Your task to perform on an android device: turn notification dots on Image 0: 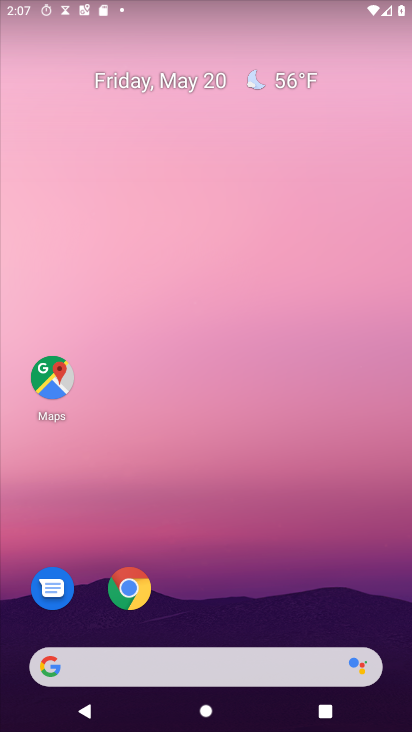
Step 0: drag from (1, 700) to (287, 269)
Your task to perform on an android device: turn notification dots on Image 1: 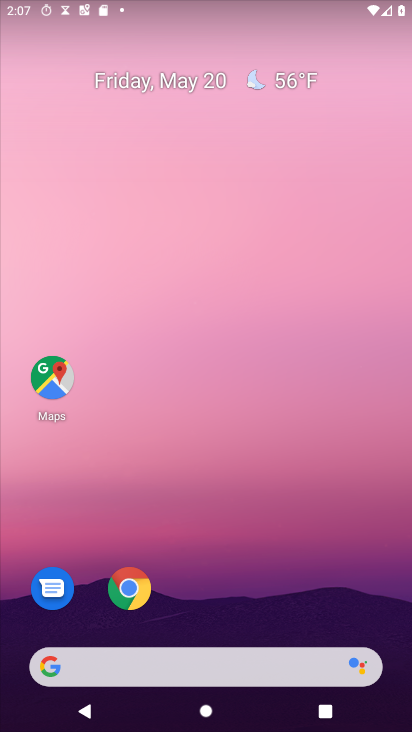
Step 1: drag from (40, 627) to (296, 264)
Your task to perform on an android device: turn notification dots on Image 2: 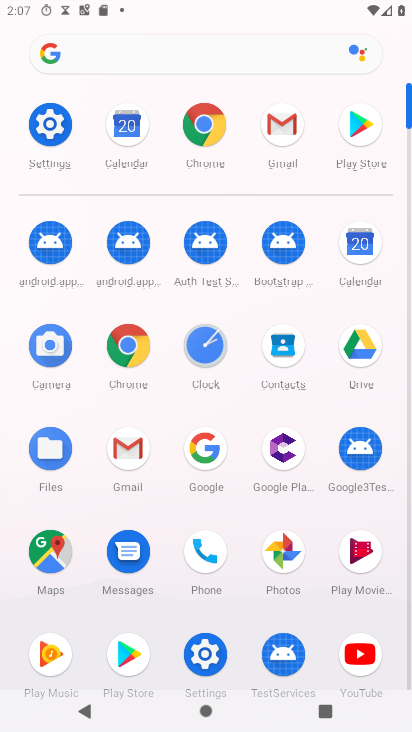
Step 2: click (66, 135)
Your task to perform on an android device: turn notification dots on Image 3: 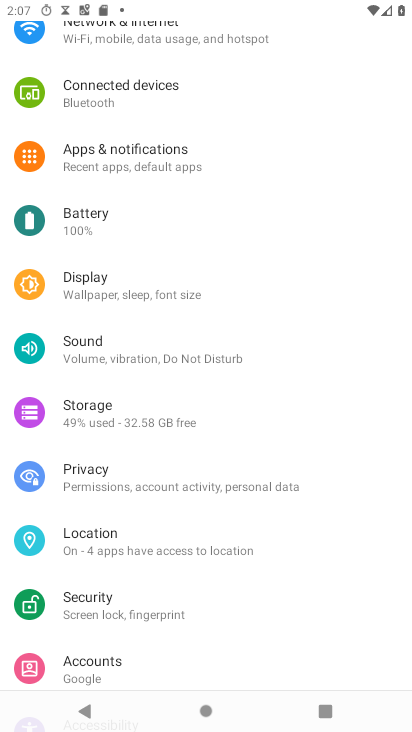
Step 3: click (150, 140)
Your task to perform on an android device: turn notification dots on Image 4: 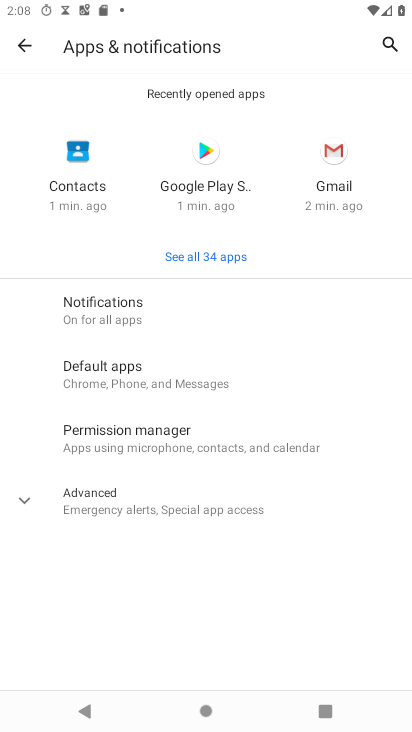
Step 4: click (215, 331)
Your task to perform on an android device: turn notification dots on Image 5: 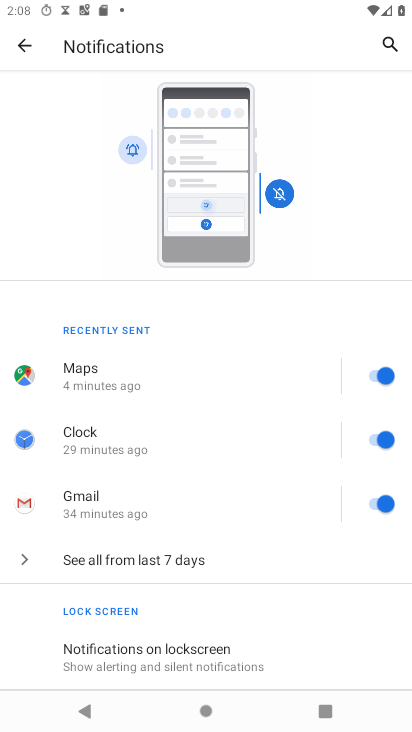
Step 5: drag from (69, 633) to (230, 219)
Your task to perform on an android device: turn notification dots on Image 6: 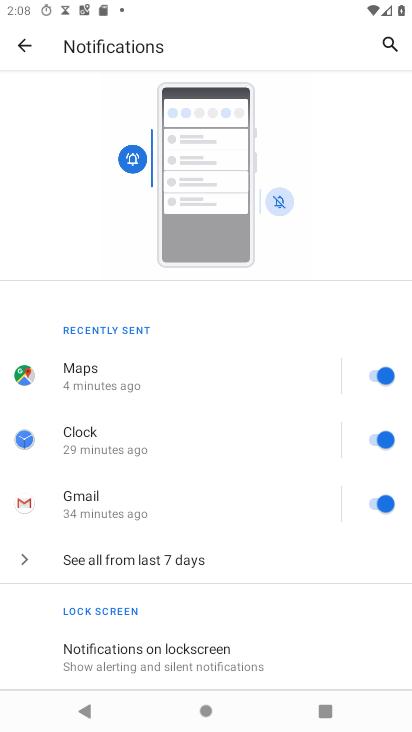
Step 6: drag from (37, 657) to (397, 209)
Your task to perform on an android device: turn notification dots on Image 7: 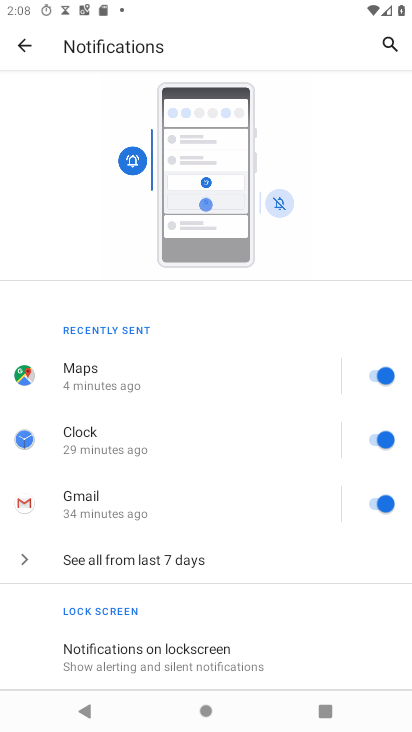
Step 7: drag from (22, 607) to (299, 172)
Your task to perform on an android device: turn notification dots on Image 8: 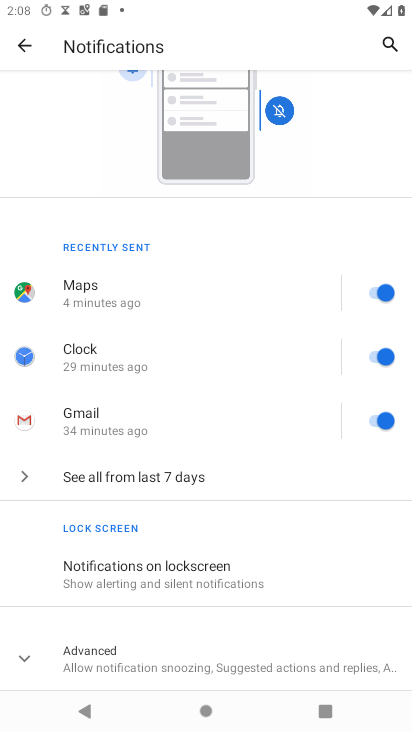
Step 8: click (151, 668)
Your task to perform on an android device: turn notification dots on Image 9: 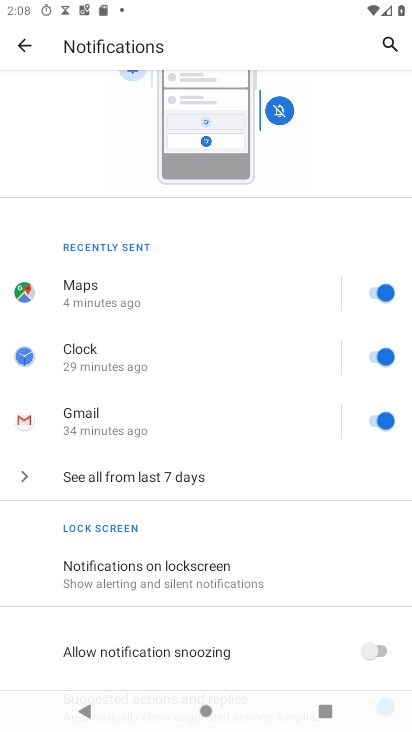
Step 9: task complete